Your task to perform on an android device: toggle javascript in the chrome app Image 0: 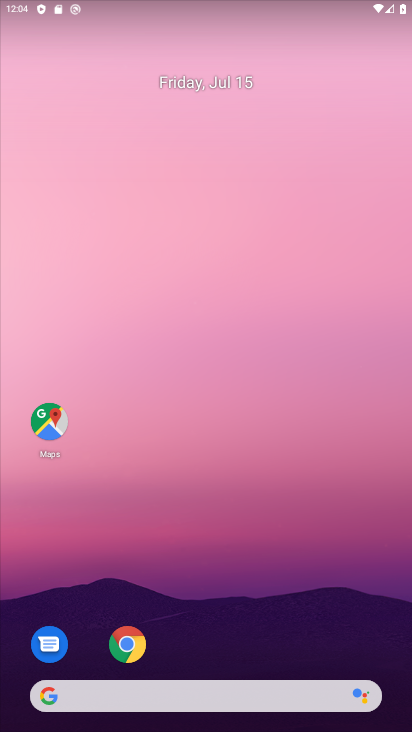
Step 0: click (130, 643)
Your task to perform on an android device: toggle javascript in the chrome app Image 1: 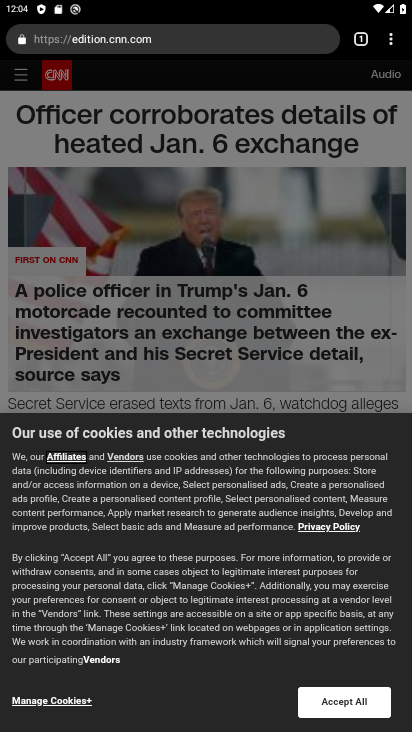
Step 1: click (392, 42)
Your task to perform on an android device: toggle javascript in the chrome app Image 2: 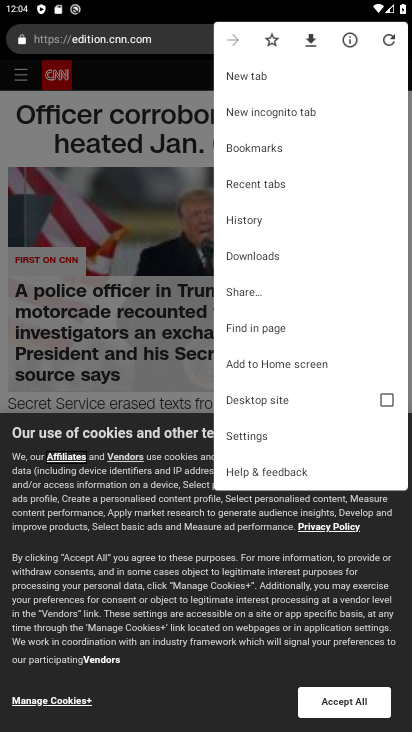
Step 2: click (247, 434)
Your task to perform on an android device: toggle javascript in the chrome app Image 3: 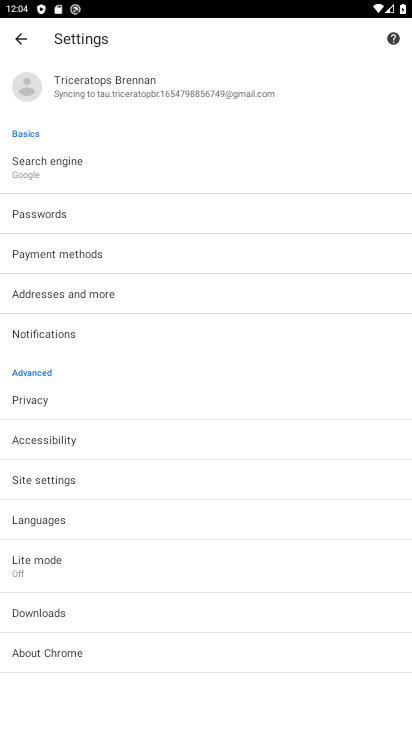
Step 3: click (41, 480)
Your task to perform on an android device: toggle javascript in the chrome app Image 4: 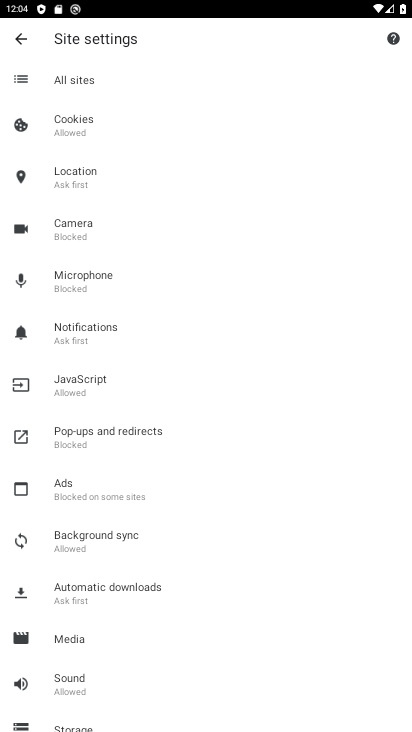
Step 4: click (65, 386)
Your task to perform on an android device: toggle javascript in the chrome app Image 5: 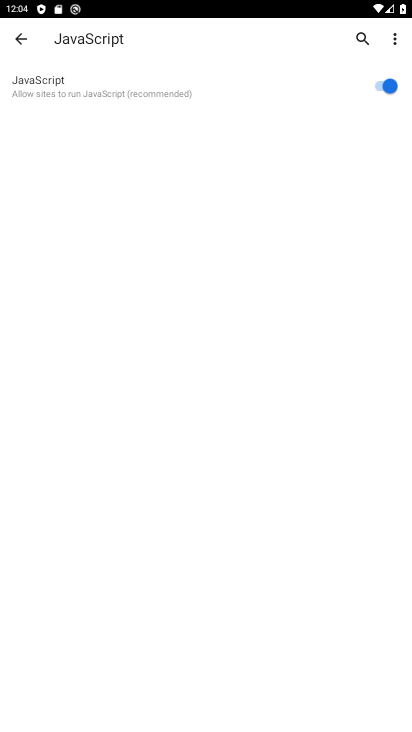
Step 5: click (385, 85)
Your task to perform on an android device: toggle javascript in the chrome app Image 6: 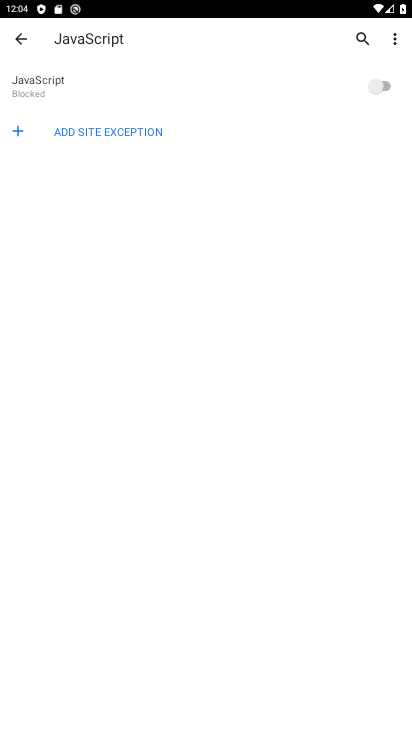
Step 6: task complete